Your task to perform on an android device: toggle data saver in the chrome app Image 0: 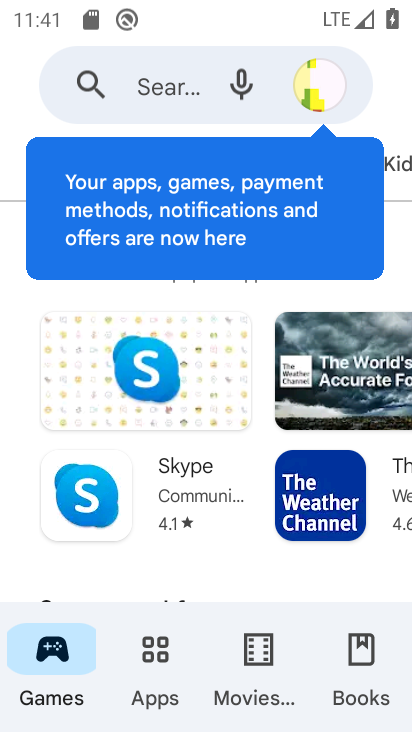
Step 0: press home button
Your task to perform on an android device: toggle data saver in the chrome app Image 1: 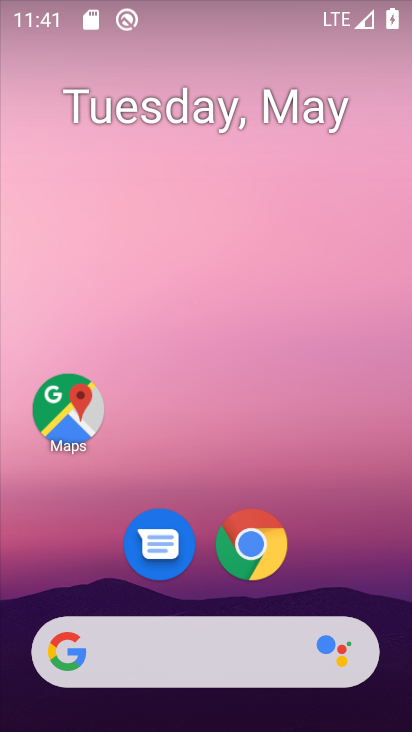
Step 1: drag from (269, 462) to (255, 163)
Your task to perform on an android device: toggle data saver in the chrome app Image 2: 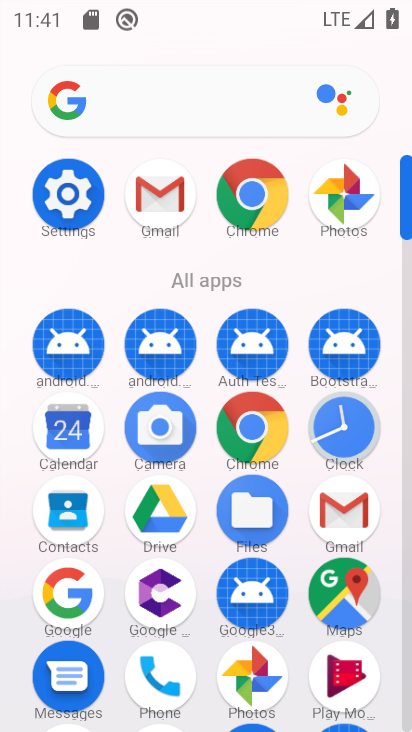
Step 2: click (235, 451)
Your task to perform on an android device: toggle data saver in the chrome app Image 3: 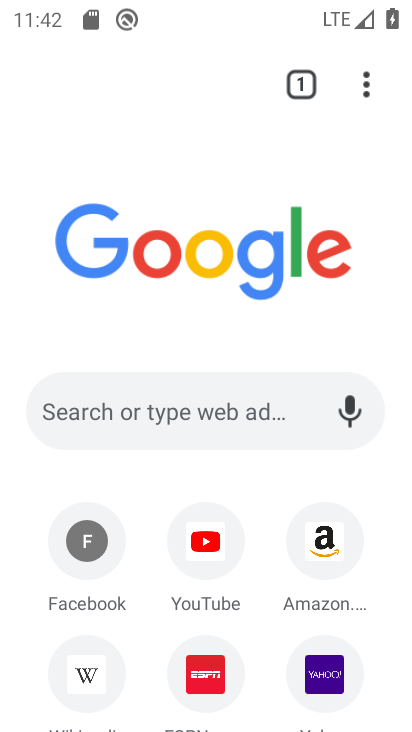
Step 3: click (366, 90)
Your task to perform on an android device: toggle data saver in the chrome app Image 4: 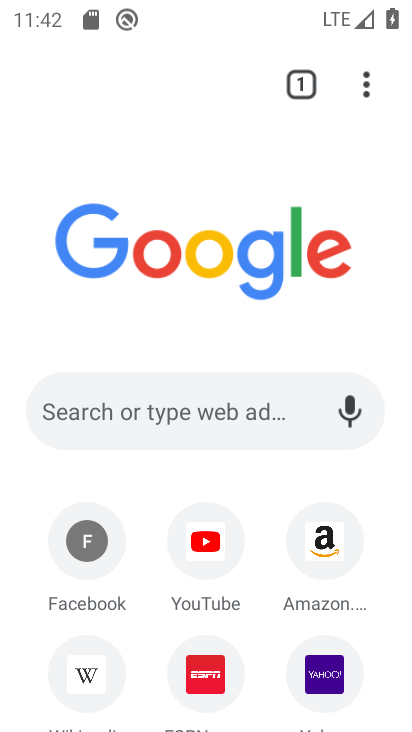
Step 4: click (367, 96)
Your task to perform on an android device: toggle data saver in the chrome app Image 5: 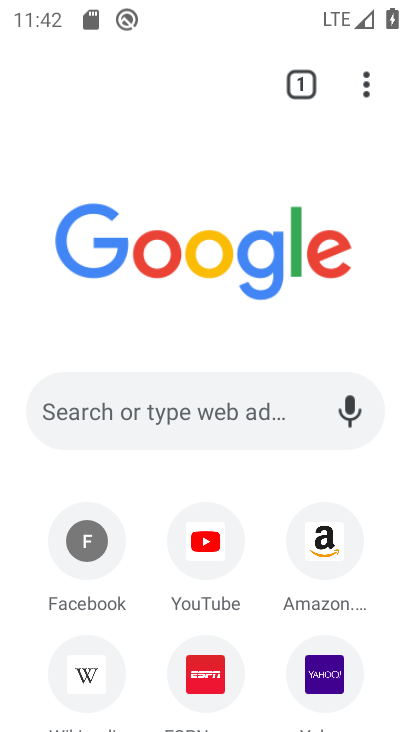
Step 5: click (368, 96)
Your task to perform on an android device: toggle data saver in the chrome app Image 6: 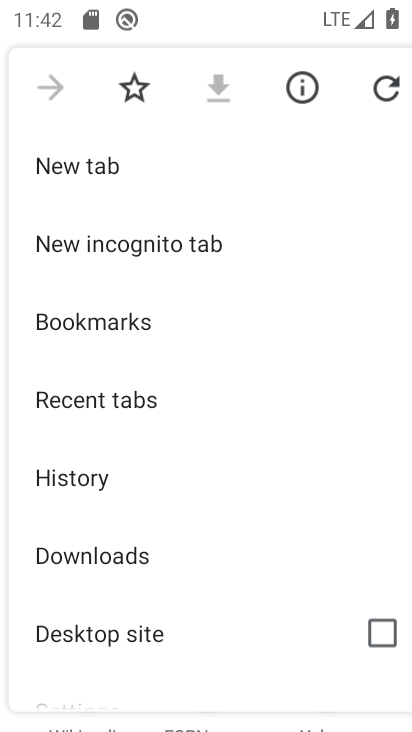
Step 6: drag from (209, 530) to (191, 144)
Your task to perform on an android device: toggle data saver in the chrome app Image 7: 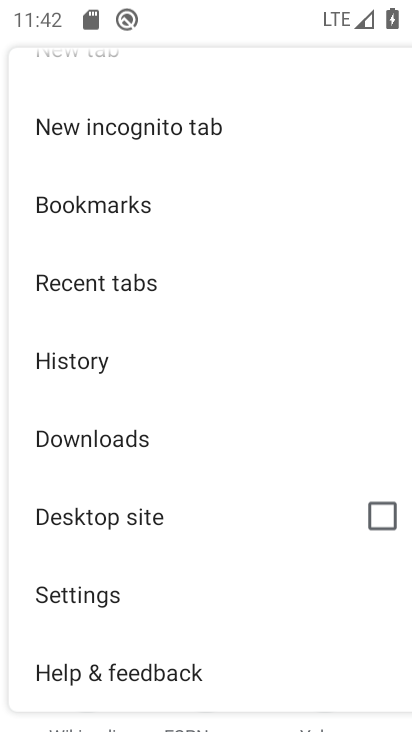
Step 7: click (127, 595)
Your task to perform on an android device: toggle data saver in the chrome app Image 8: 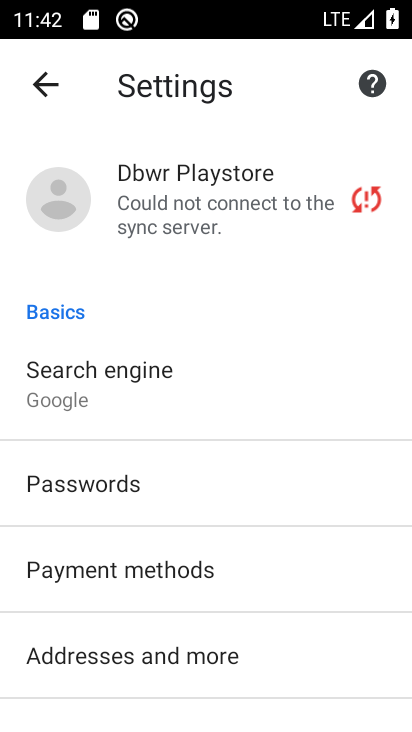
Step 8: drag from (162, 561) to (229, 174)
Your task to perform on an android device: toggle data saver in the chrome app Image 9: 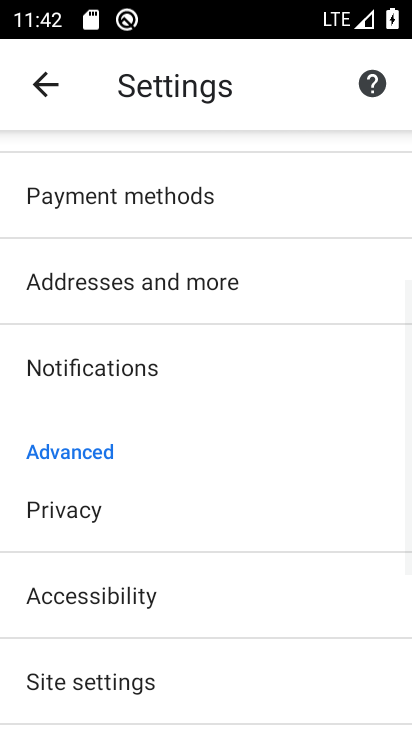
Step 9: drag from (204, 590) to (238, 230)
Your task to perform on an android device: toggle data saver in the chrome app Image 10: 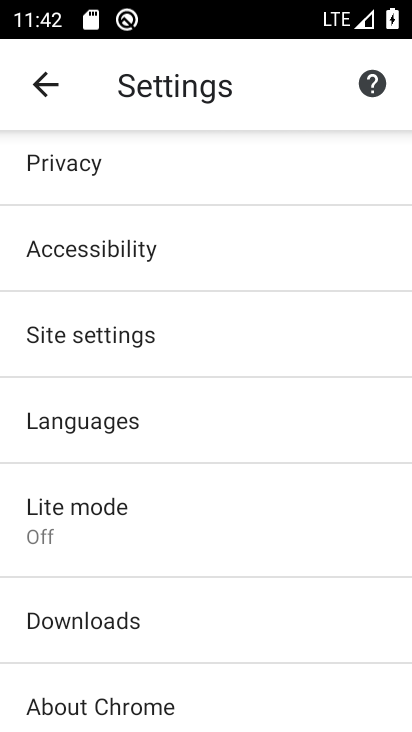
Step 10: click (134, 535)
Your task to perform on an android device: toggle data saver in the chrome app Image 11: 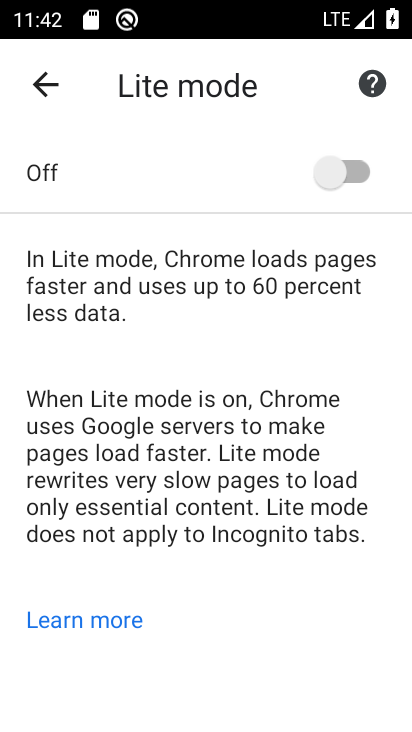
Step 11: click (350, 180)
Your task to perform on an android device: toggle data saver in the chrome app Image 12: 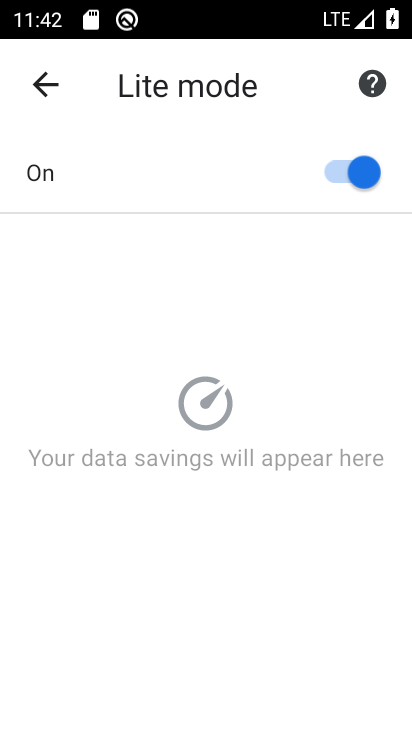
Step 12: task complete